Your task to perform on an android device: refresh tabs in the chrome app Image 0: 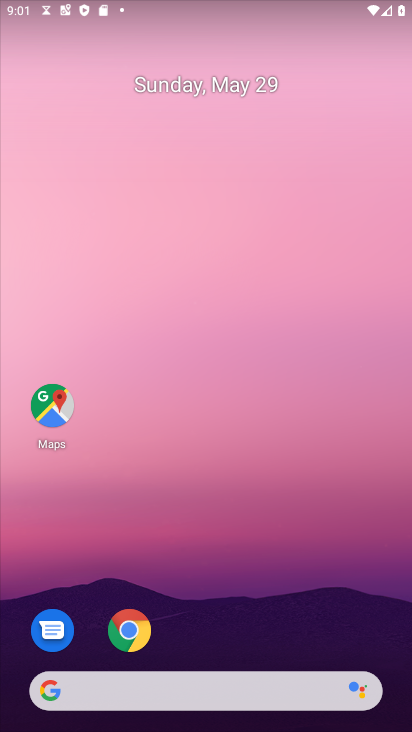
Step 0: click (130, 627)
Your task to perform on an android device: refresh tabs in the chrome app Image 1: 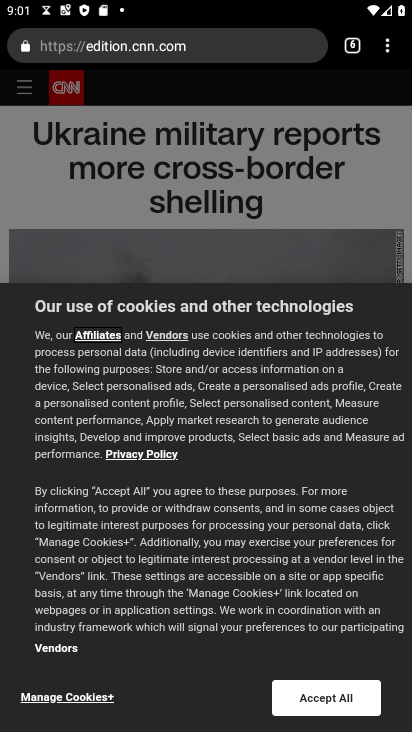
Step 1: click (391, 47)
Your task to perform on an android device: refresh tabs in the chrome app Image 2: 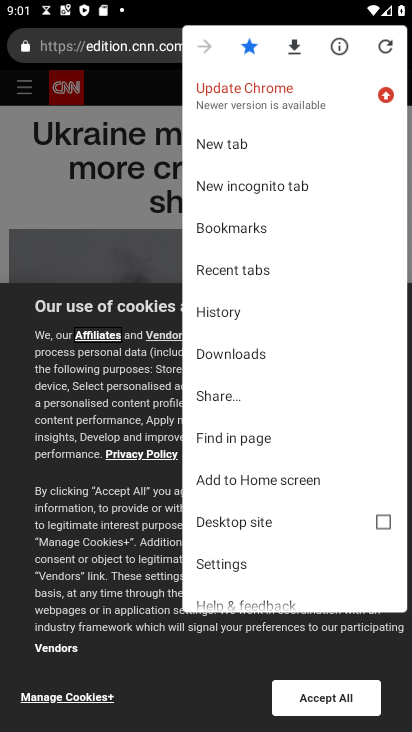
Step 2: click (390, 45)
Your task to perform on an android device: refresh tabs in the chrome app Image 3: 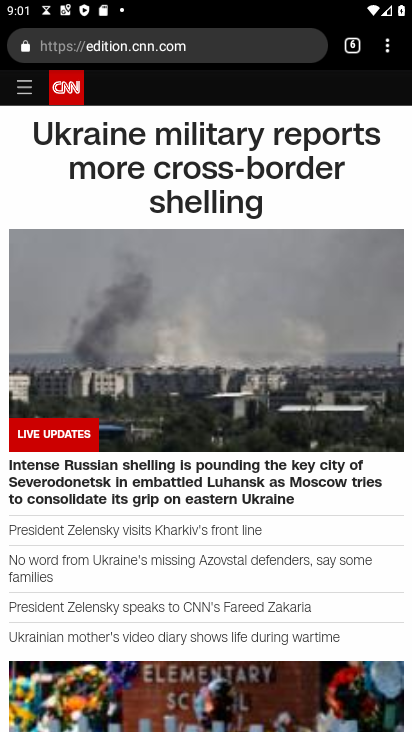
Step 3: task complete